Your task to perform on an android device: turn pop-ups on in chrome Image 0: 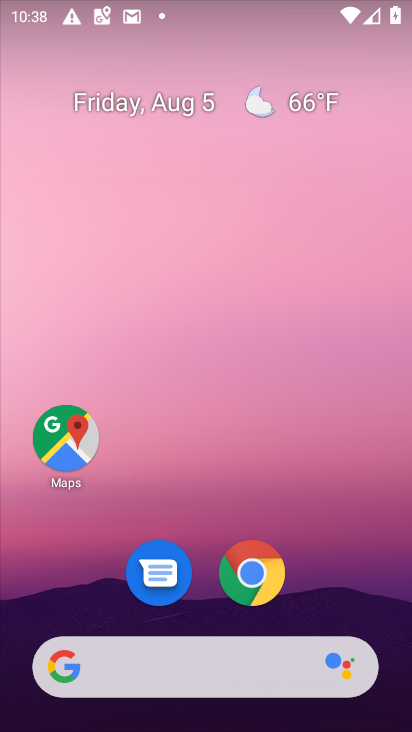
Step 0: press home button
Your task to perform on an android device: turn pop-ups on in chrome Image 1: 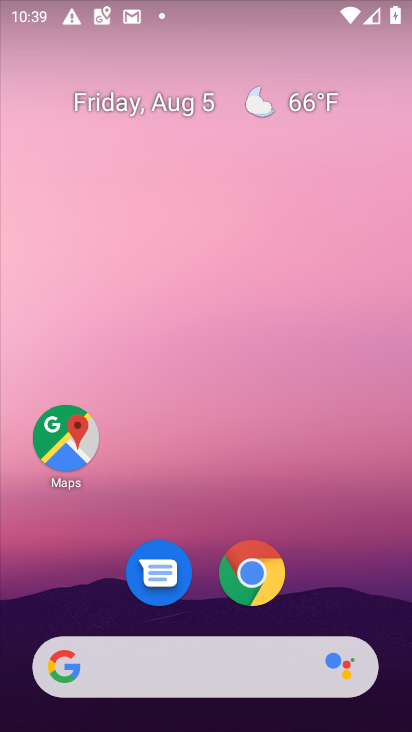
Step 1: click (251, 566)
Your task to perform on an android device: turn pop-ups on in chrome Image 2: 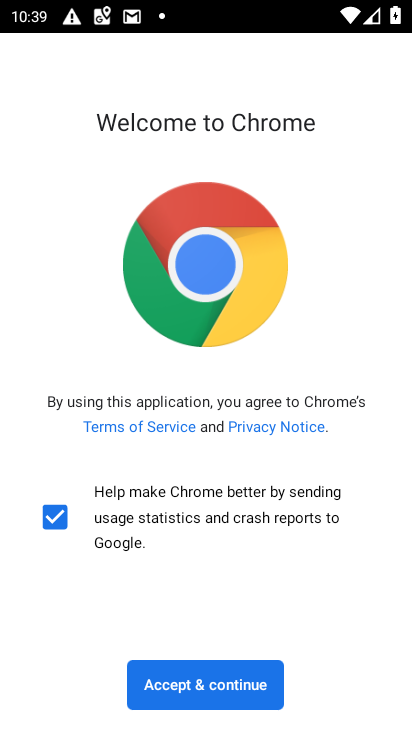
Step 2: click (196, 682)
Your task to perform on an android device: turn pop-ups on in chrome Image 3: 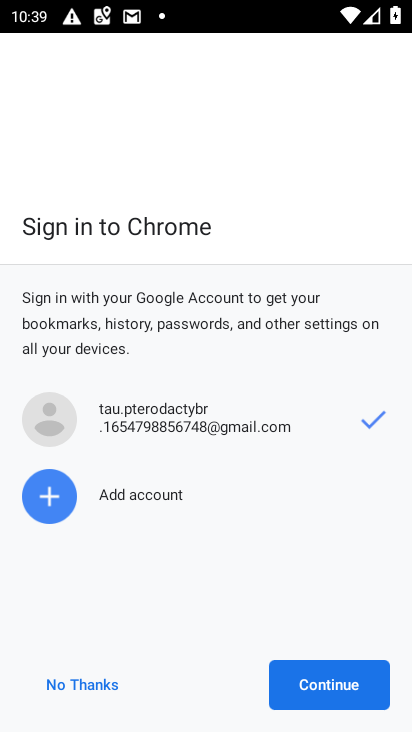
Step 3: click (330, 691)
Your task to perform on an android device: turn pop-ups on in chrome Image 4: 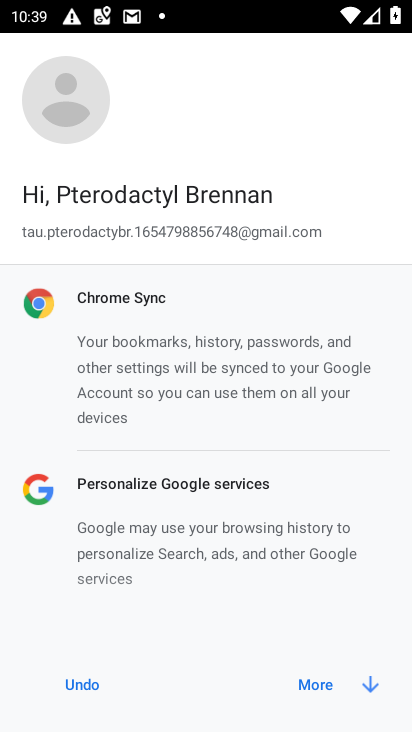
Step 4: click (322, 687)
Your task to perform on an android device: turn pop-ups on in chrome Image 5: 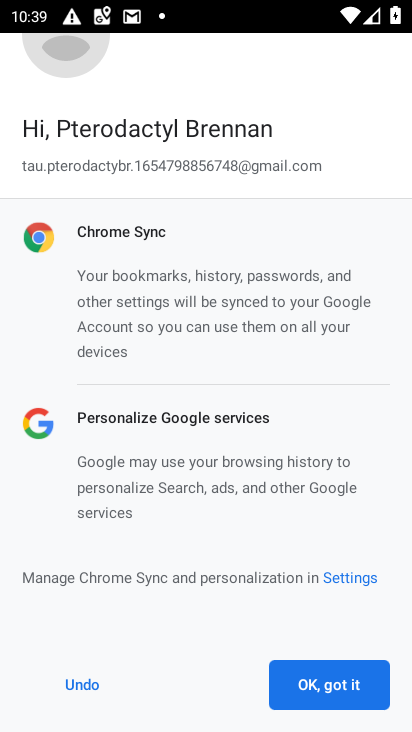
Step 5: click (322, 687)
Your task to perform on an android device: turn pop-ups on in chrome Image 6: 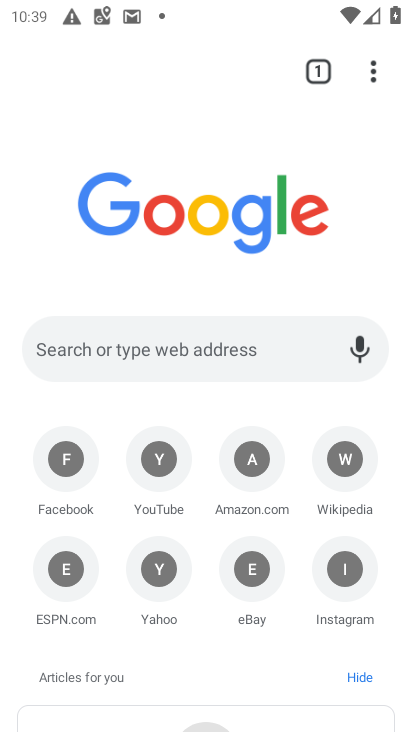
Step 6: click (371, 72)
Your task to perform on an android device: turn pop-ups on in chrome Image 7: 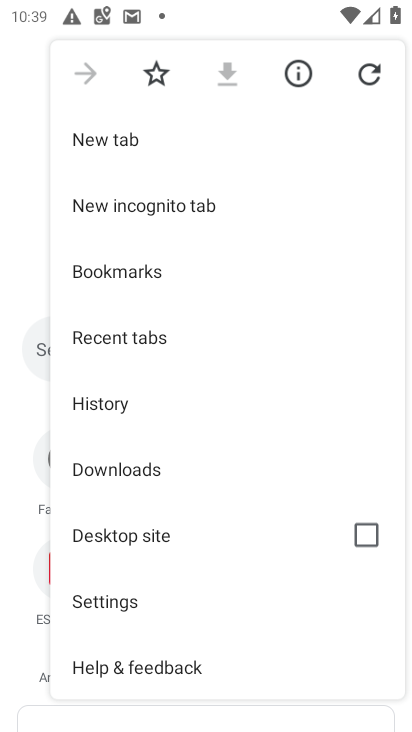
Step 7: click (141, 596)
Your task to perform on an android device: turn pop-ups on in chrome Image 8: 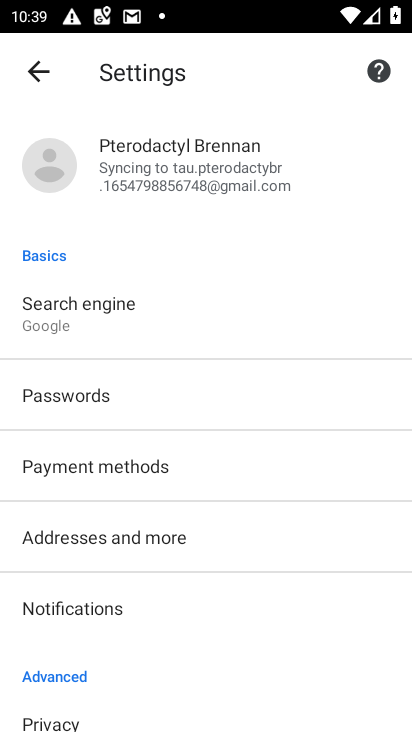
Step 8: drag from (185, 666) to (185, 247)
Your task to perform on an android device: turn pop-ups on in chrome Image 9: 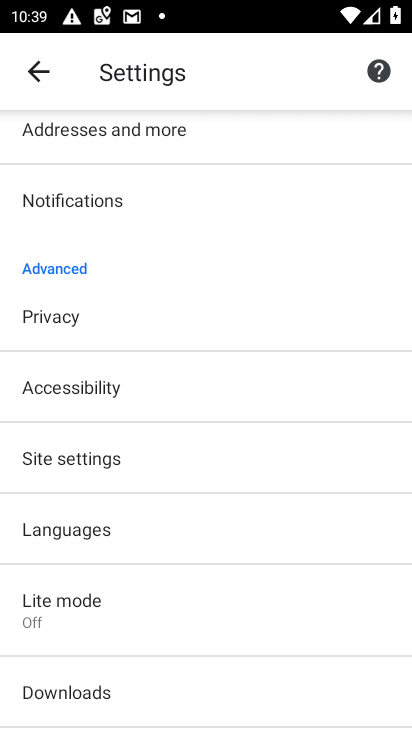
Step 9: click (139, 452)
Your task to perform on an android device: turn pop-ups on in chrome Image 10: 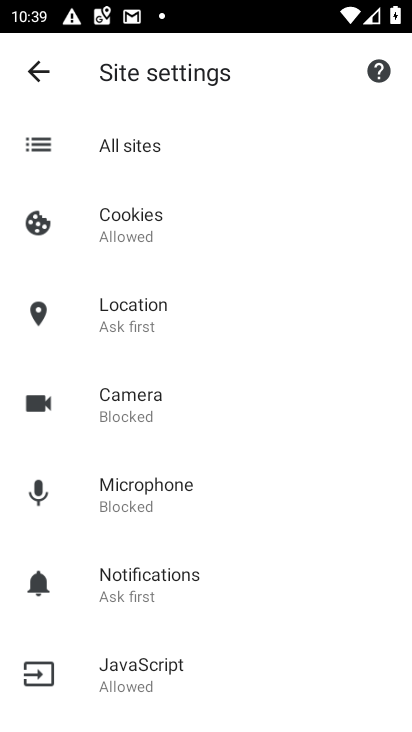
Step 10: drag from (248, 663) to (270, 288)
Your task to perform on an android device: turn pop-ups on in chrome Image 11: 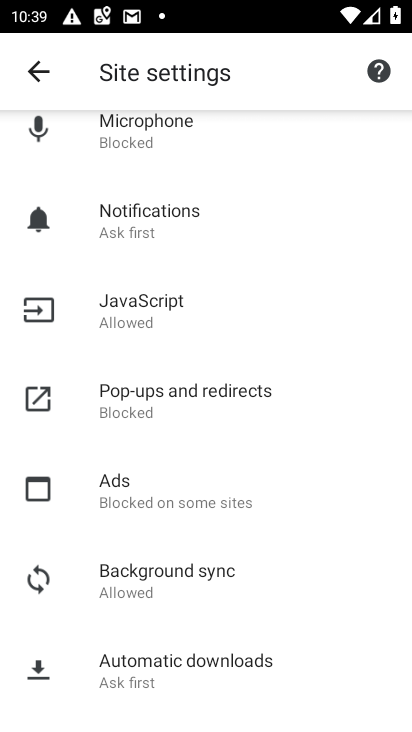
Step 11: click (174, 403)
Your task to perform on an android device: turn pop-ups on in chrome Image 12: 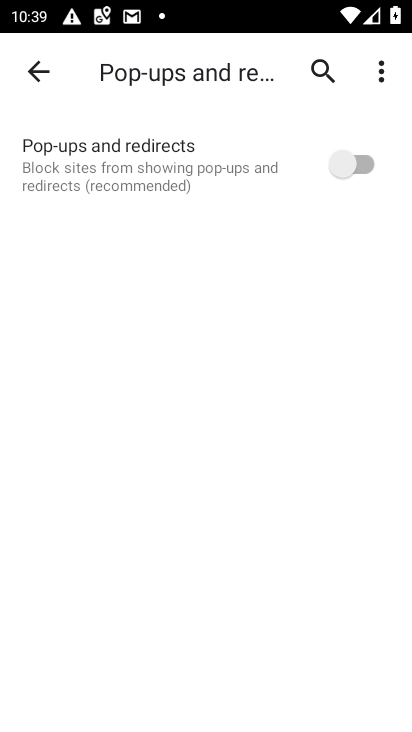
Step 12: click (361, 160)
Your task to perform on an android device: turn pop-ups on in chrome Image 13: 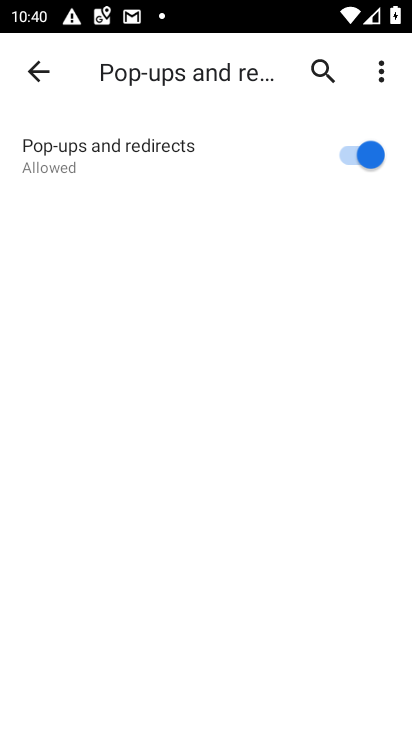
Step 13: task complete